Your task to perform on an android device: show emergency info Image 0: 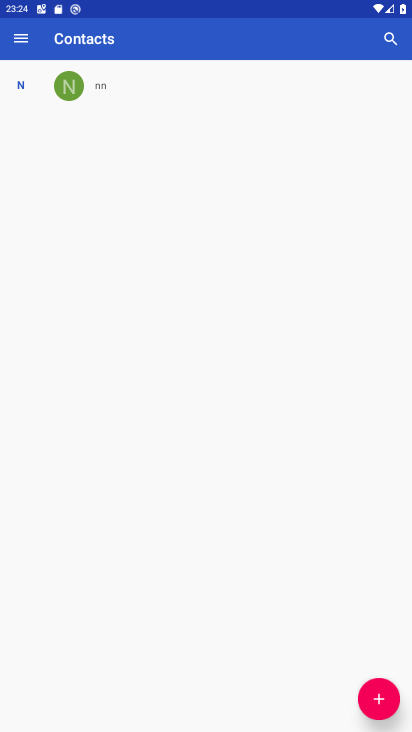
Step 0: press home button
Your task to perform on an android device: show emergency info Image 1: 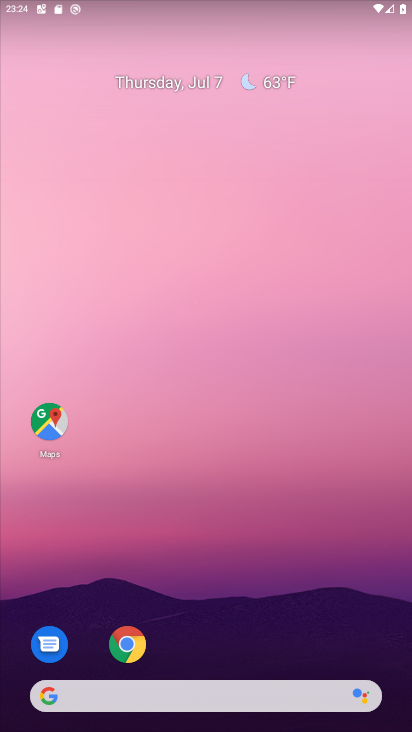
Step 1: drag from (240, 695) to (228, 175)
Your task to perform on an android device: show emergency info Image 2: 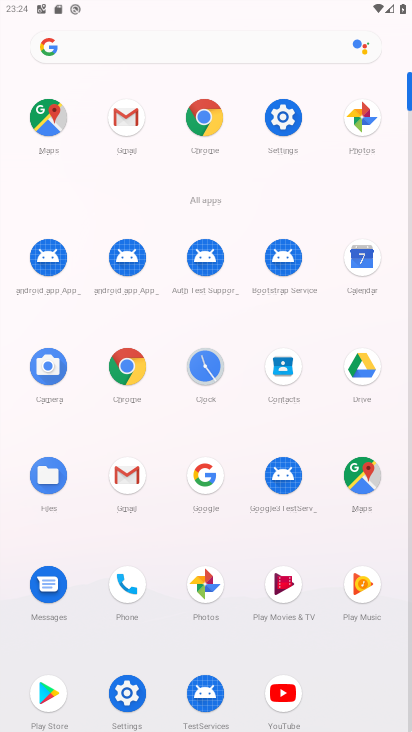
Step 2: click (290, 123)
Your task to perform on an android device: show emergency info Image 3: 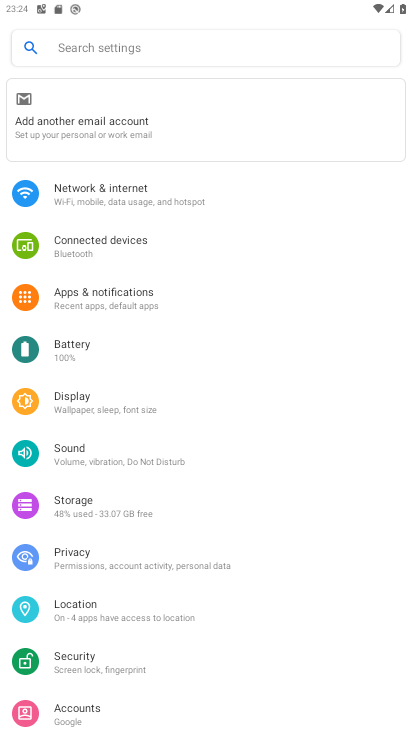
Step 3: drag from (149, 688) to (138, 236)
Your task to perform on an android device: show emergency info Image 4: 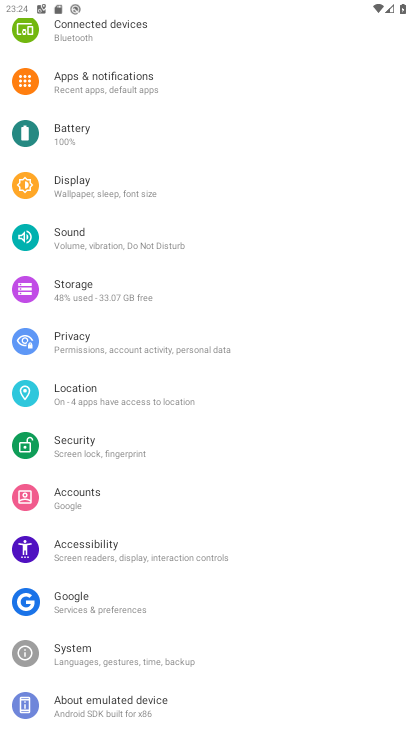
Step 4: click (127, 698)
Your task to perform on an android device: show emergency info Image 5: 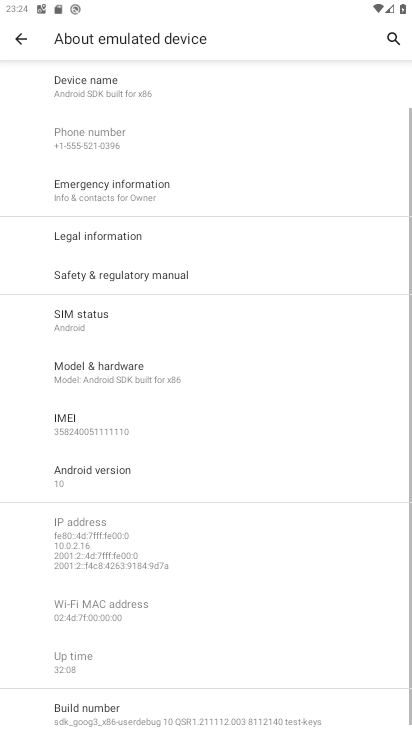
Step 5: click (116, 197)
Your task to perform on an android device: show emergency info Image 6: 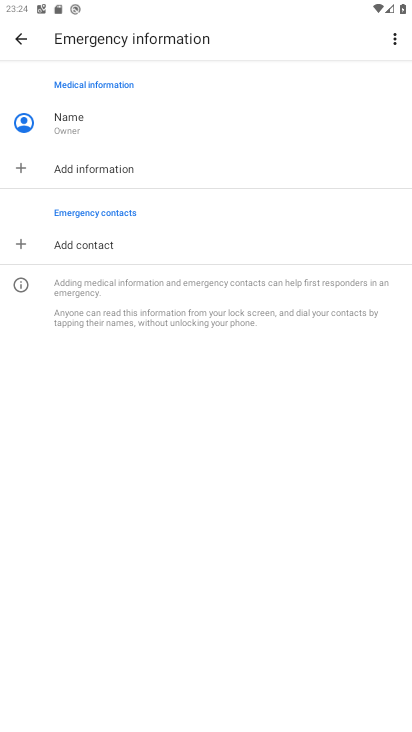
Step 6: task complete